Your task to perform on an android device: install app "Google Chat" Image 0: 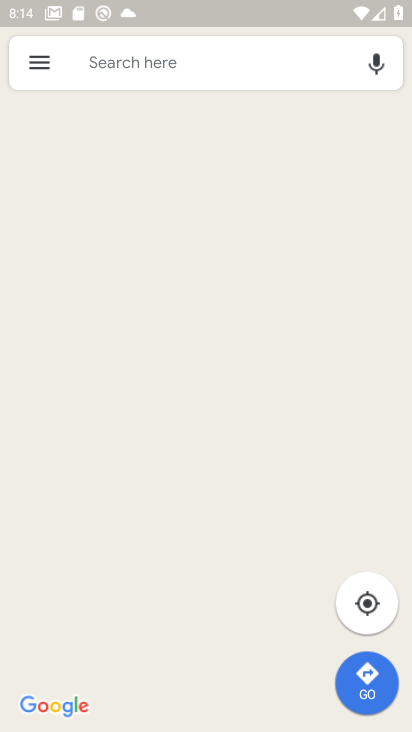
Step 0: press home button
Your task to perform on an android device: install app "Google Chat" Image 1: 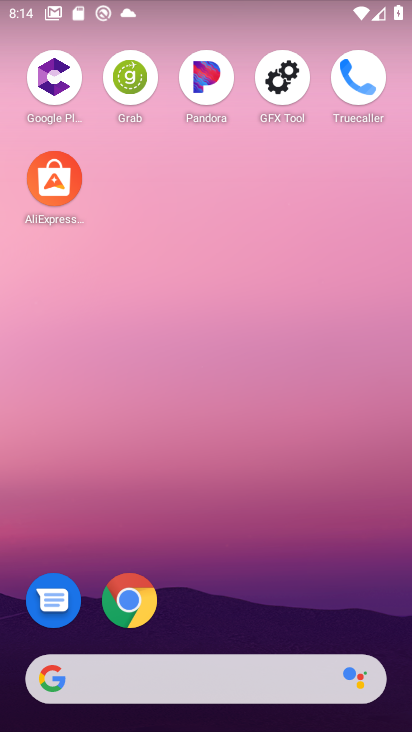
Step 1: press home button
Your task to perform on an android device: install app "Google Chat" Image 2: 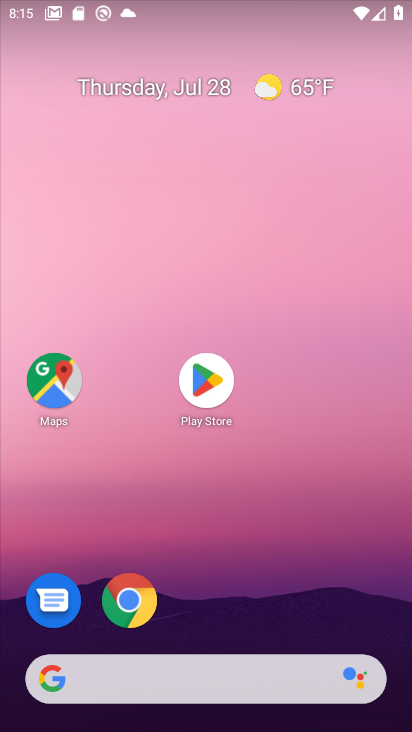
Step 2: click (210, 383)
Your task to perform on an android device: install app "Google Chat" Image 3: 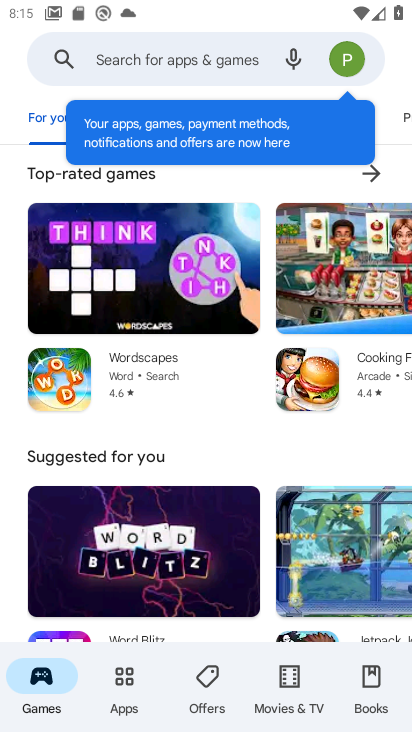
Step 3: click (209, 52)
Your task to perform on an android device: install app "Google Chat" Image 4: 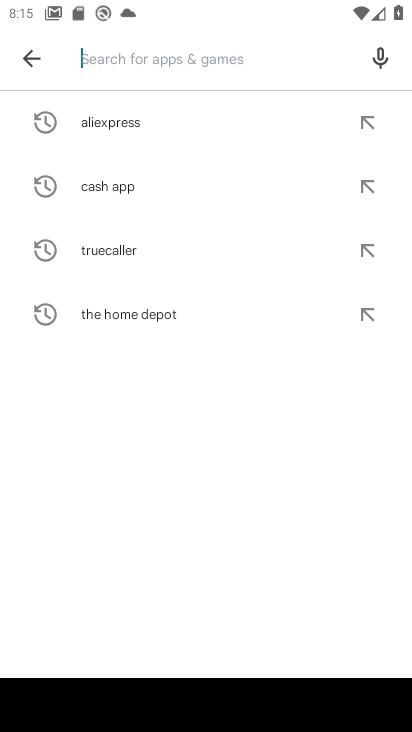
Step 4: type "Google Chat"
Your task to perform on an android device: install app "Google Chat" Image 5: 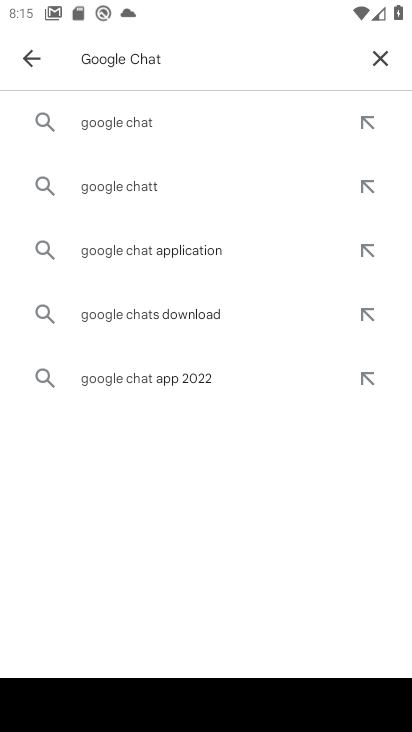
Step 5: click (126, 121)
Your task to perform on an android device: install app "Google Chat" Image 6: 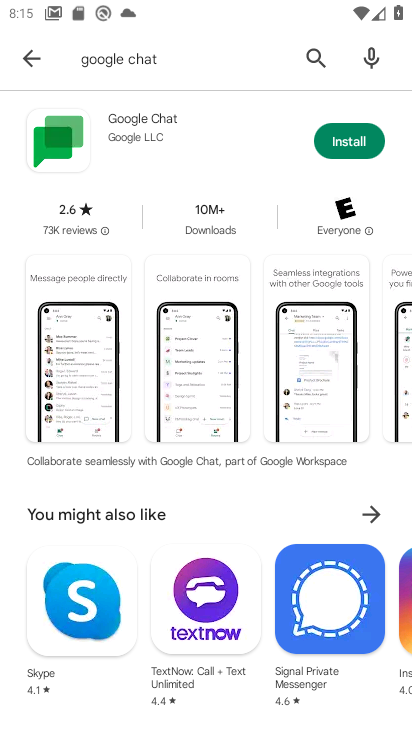
Step 6: click (353, 141)
Your task to perform on an android device: install app "Google Chat" Image 7: 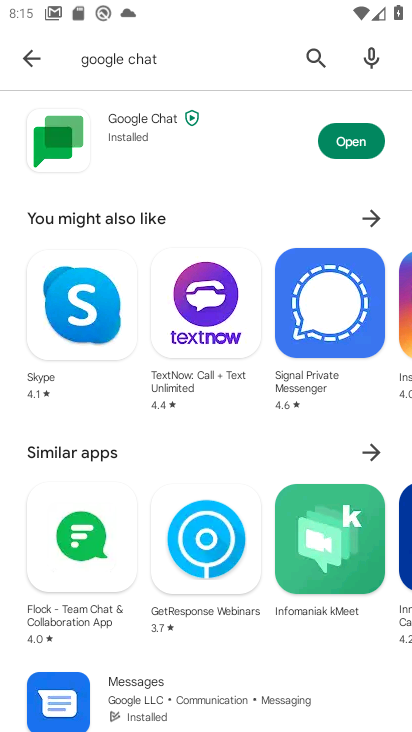
Step 7: task complete